Your task to perform on an android device: Go to network settings Image 0: 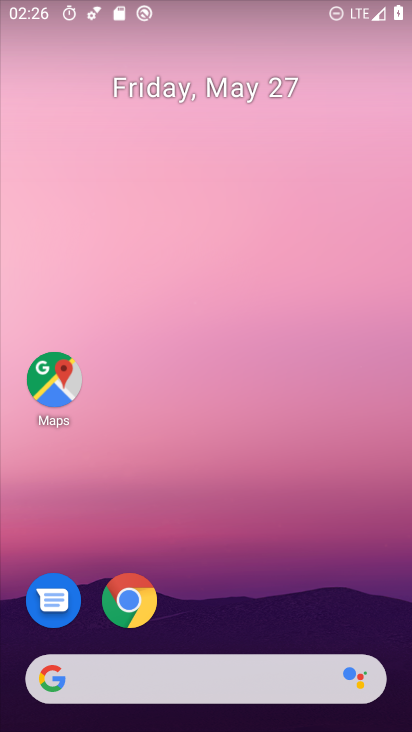
Step 0: drag from (208, 605) to (116, 74)
Your task to perform on an android device: Go to network settings Image 1: 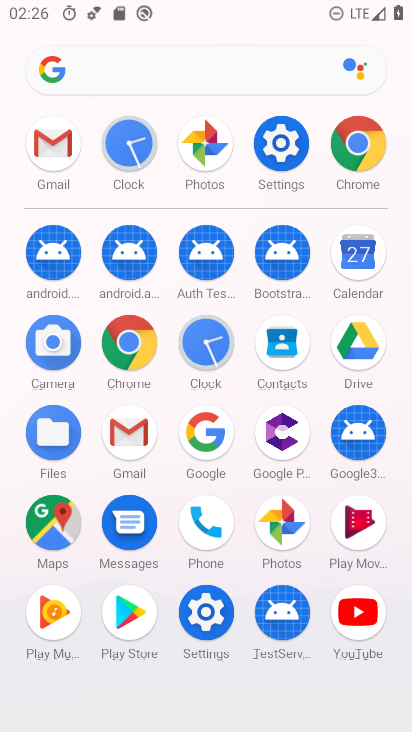
Step 1: click (270, 141)
Your task to perform on an android device: Go to network settings Image 2: 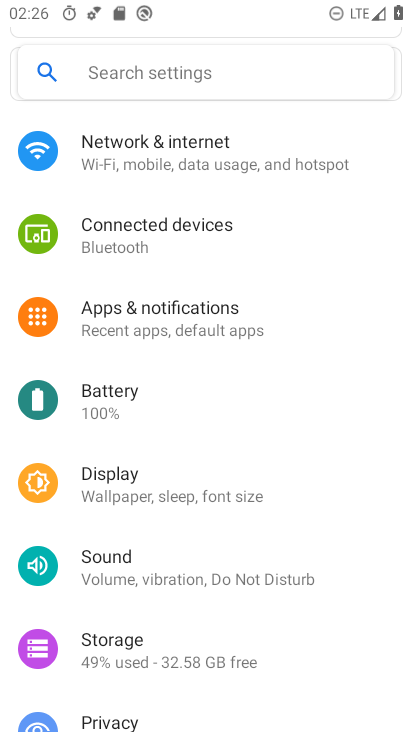
Step 2: click (164, 129)
Your task to perform on an android device: Go to network settings Image 3: 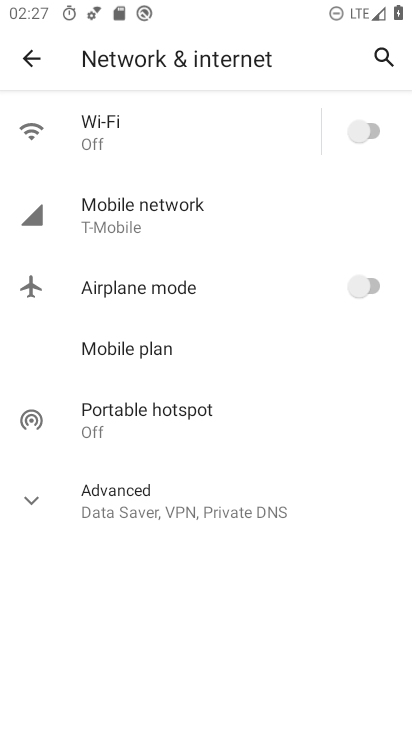
Step 3: task complete